Your task to perform on an android device: Open accessibility settings Image 0: 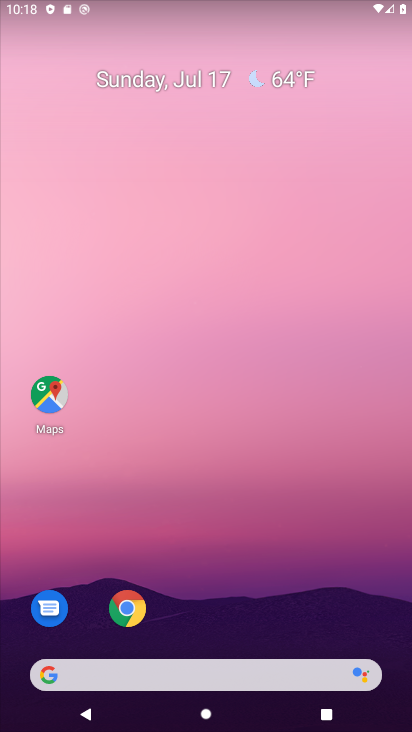
Step 0: drag from (369, 613) to (278, 20)
Your task to perform on an android device: Open accessibility settings Image 1: 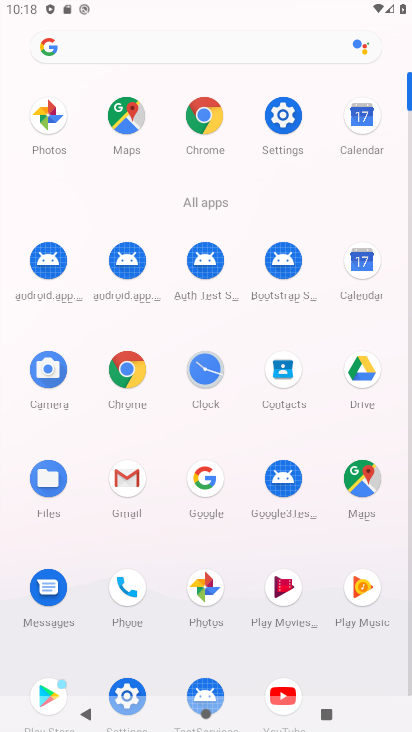
Step 1: drag from (285, 115) to (180, 471)
Your task to perform on an android device: Open accessibility settings Image 2: 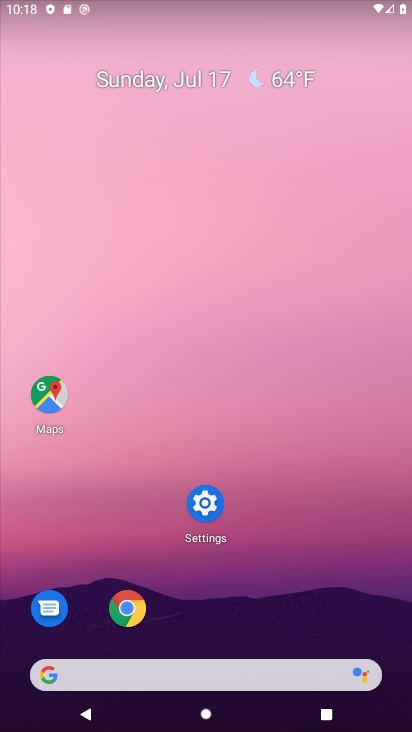
Step 2: click (201, 515)
Your task to perform on an android device: Open accessibility settings Image 3: 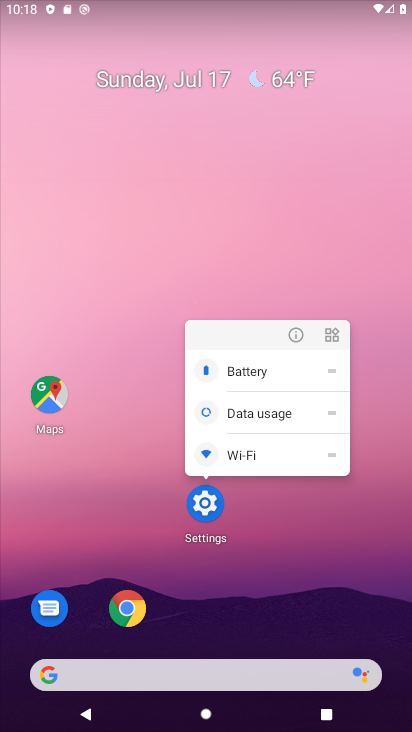
Step 3: click (198, 514)
Your task to perform on an android device: Open accessibility settings Image 4: 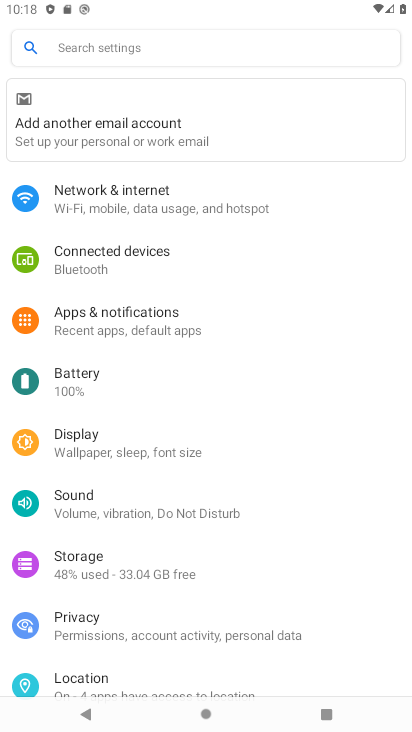
Step 4: drag from (203, 651) to (112, 183)
Your task to perform on an android device: Open accessibility settings Image 5: 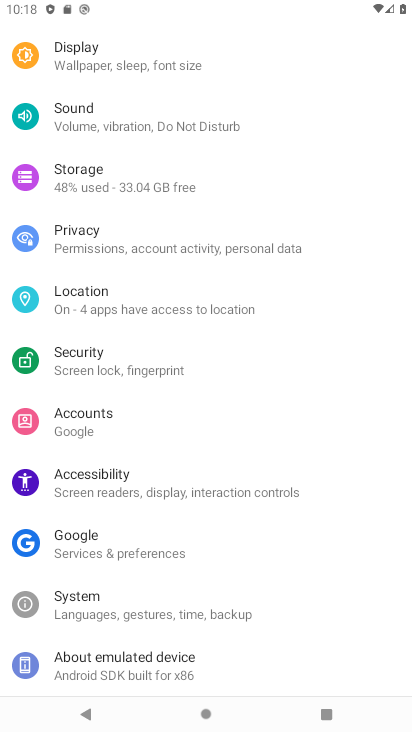
Step 5: click (124, 465)
Your task to perform on an android device: Open accessibility settings Image 6: 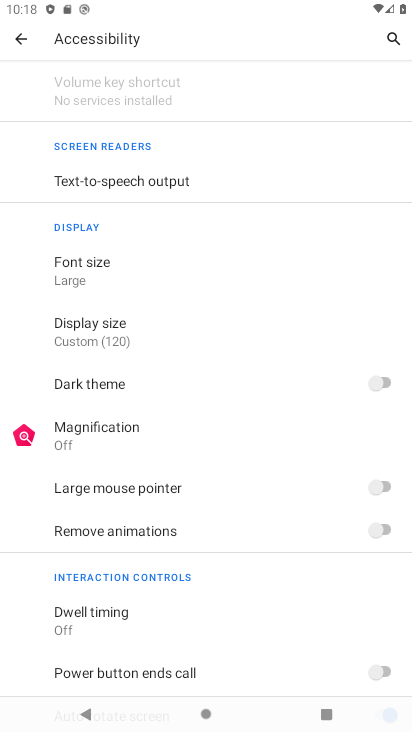
Step 6: task complete